Your task to perform on an android device: toggle notifications settings in the gmail app Image 0: 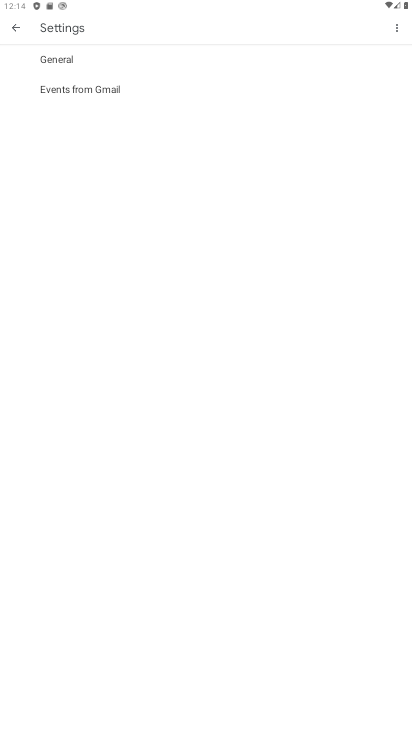
Step 0: press home button
Your task to perform on an android device: toggle notifications settings in the gmail app Image 1: 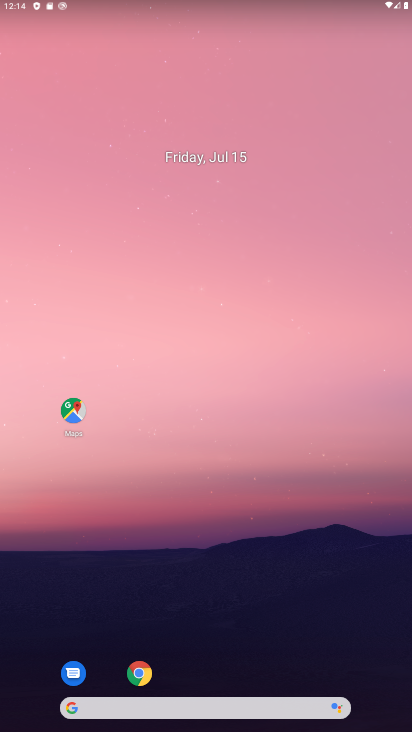
Step 1: drag from (372, 650) to (304, 56)
Your task to perform on an android device: toggle notifications settings in the gmail app Image 2: 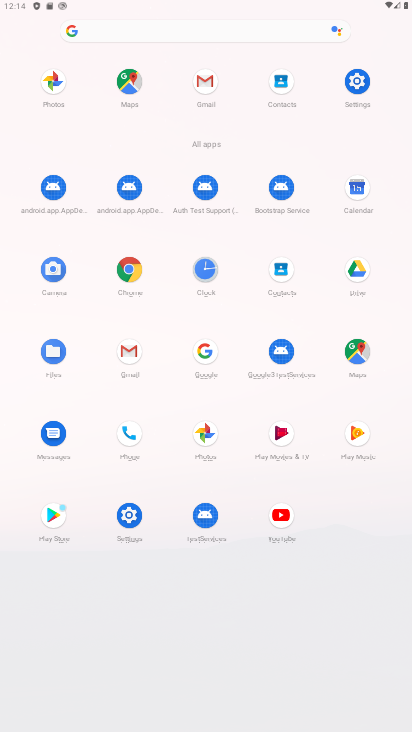
Step 2: click (133, 356)
Your task to perform on an android device: toggle notifications settings in the gmail app Image 3: 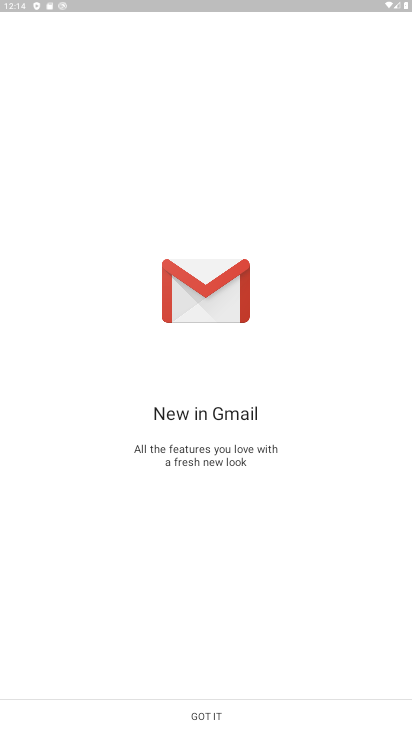
Step 3: click (203, 719)
Your task to perform on an android device: toggle notifications settings in the gmail app Image 4: 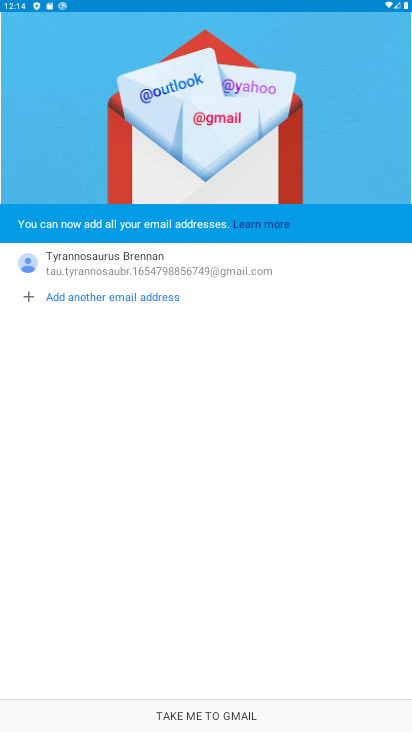
Step 4: click (199, 712)
Your task to perform on an android device: toggle notifications settings in the gmail app Image 5: 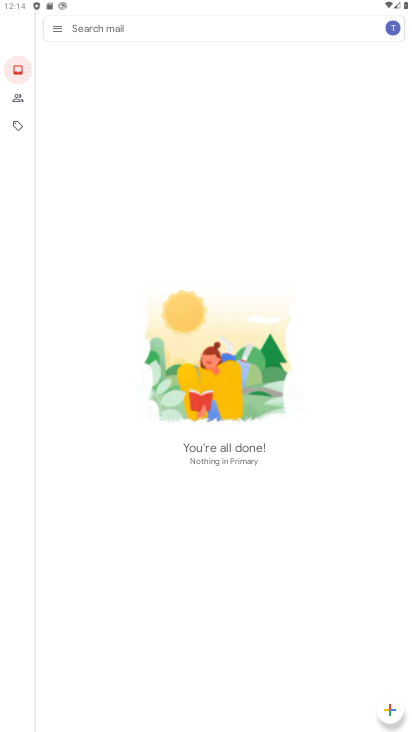
Step 5: click (52, 27)
Your task to perform on an android device: toggle notifications settings in the gmail app Image 6: 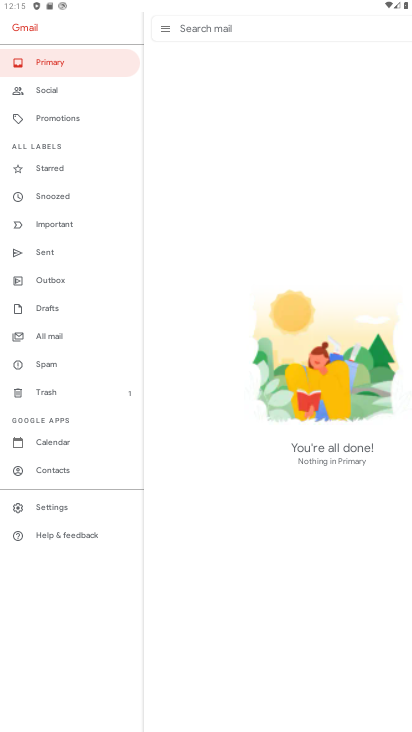
Step 6: click (49, 504)
Your task to perform on an android device: toggle notifications settings in the gmail app Image 7: 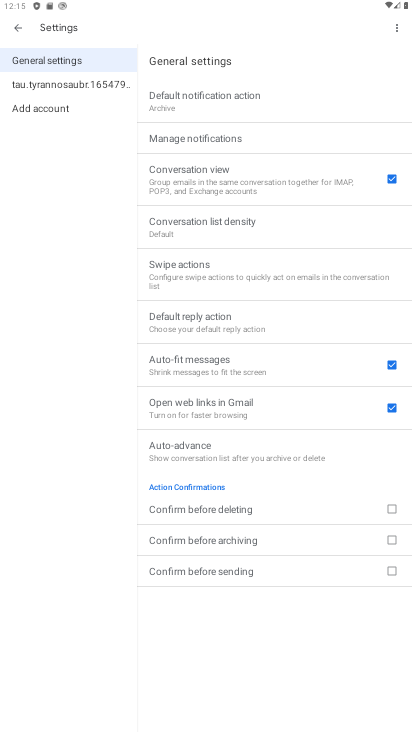
Step 7: click (35, 87)
Your task to perform on an android device: toggle notifications settings in the gmail app Image 8: 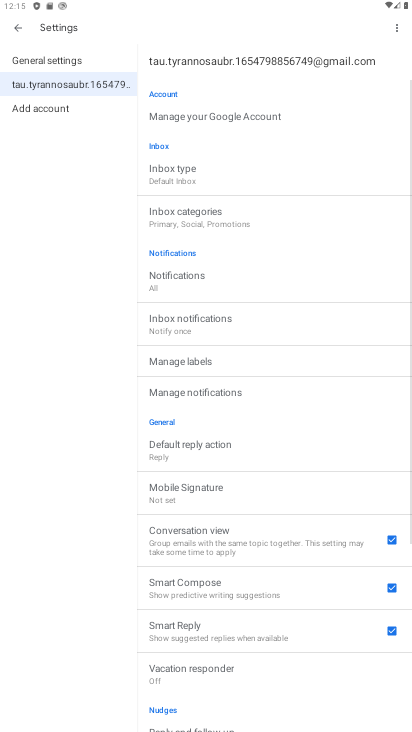
Step 8: click (164, 256)
Your task to perform on an android device: toggle notifications settings in the gmail app Image 9: 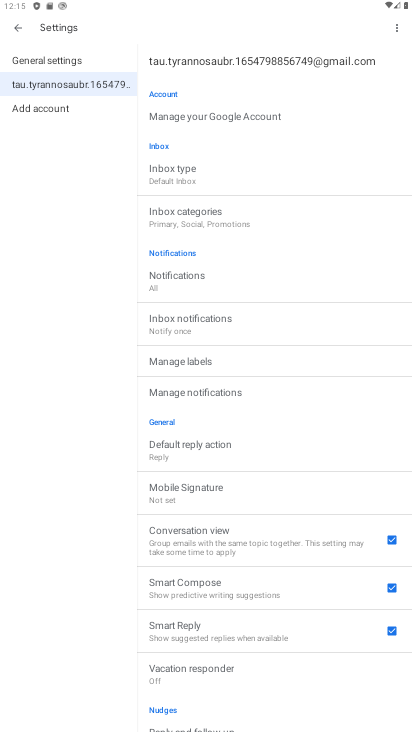
Step 9: click (164, 252)
Your task to perform on an android device: toggle notifications settings in the gmail app Image 10: 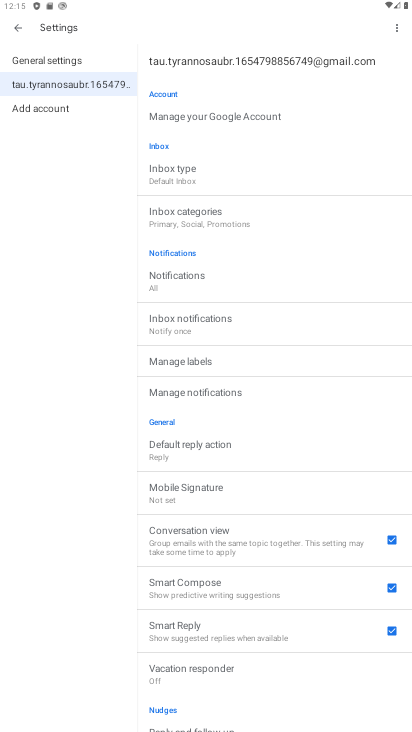
Step 10: click (159, 265)
Your task to perform on an android device: toggle notifications settings in the gmail app Image 11: 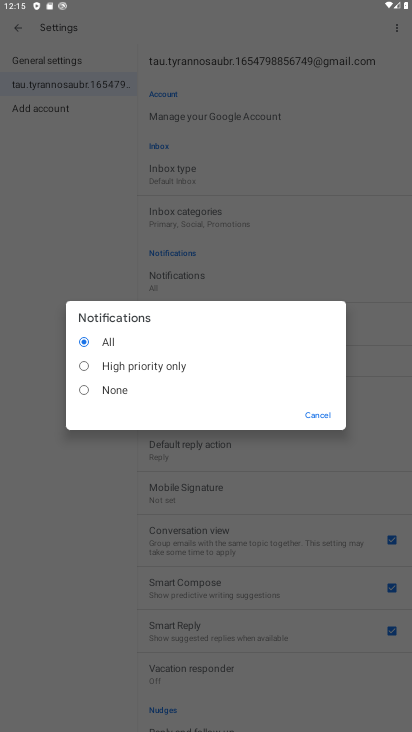
Step 11: click (126, 368)
Your task to perform on an android device: toggle notifications settings in the gmail app Image 12: 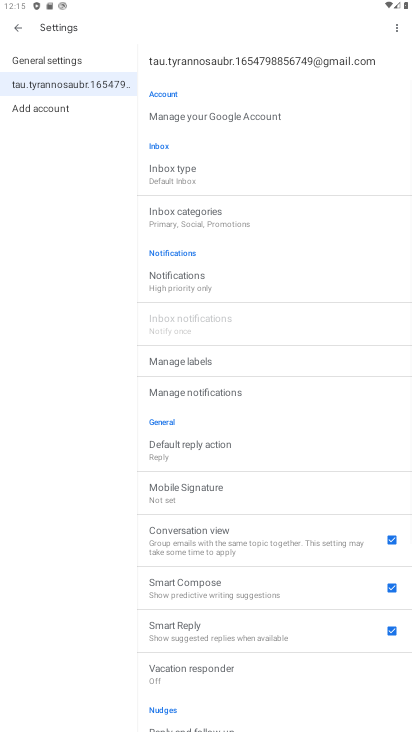
Step 12: task complete